Your task to perform on an android device: Show me recent news Image 0: 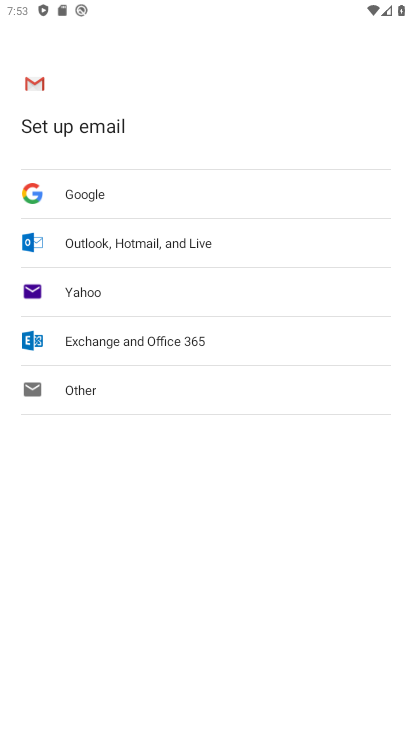
Step 0: press home button
Your task to perform on an android device: Show me recent news Image 1: 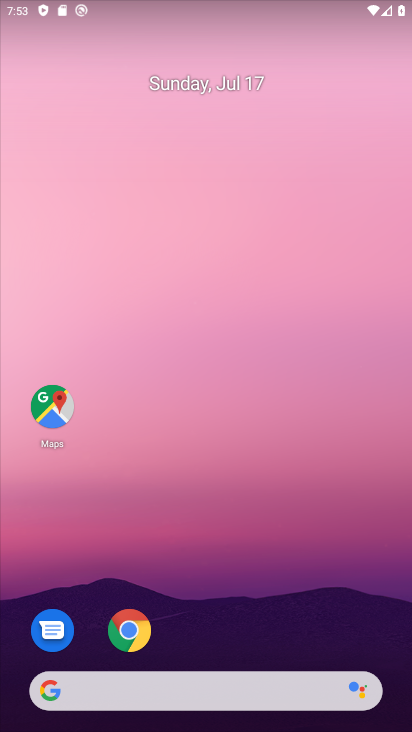
Step 1: click (113, 685)
Your task to perform on an android device: Show me recent news Image 2: 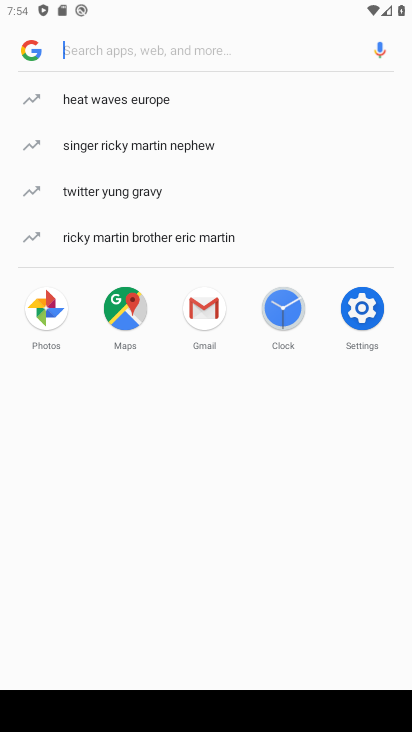
Step 2: type "recent news"
Your task to perform on an android device: Show me recent news Image 3: 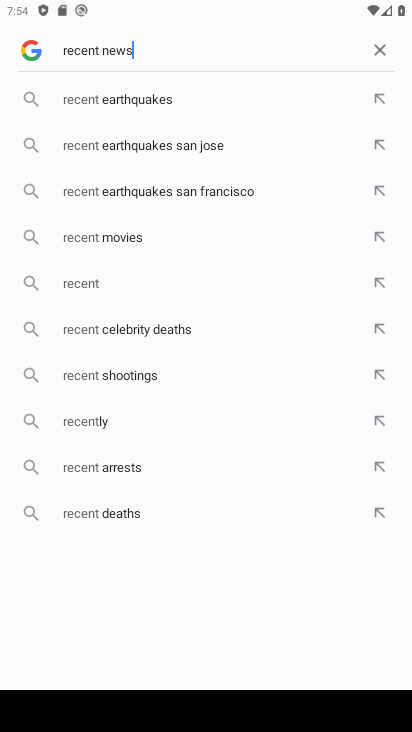
Step 3: type ""
Your task to perform on an android device: Show me recent news Image 4: 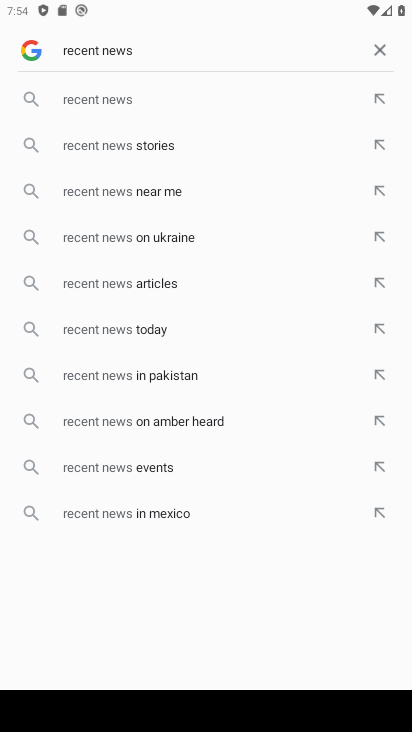
Step 4: click (104, 87)
Your task to perform on an android device: Show me recent news Image 5: 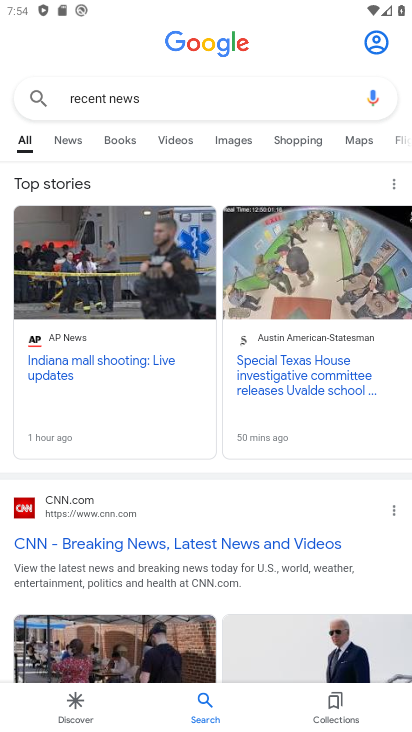
Step 5: task complete